Your task to perform on an android device: Clear the cart on costco. Image 0: 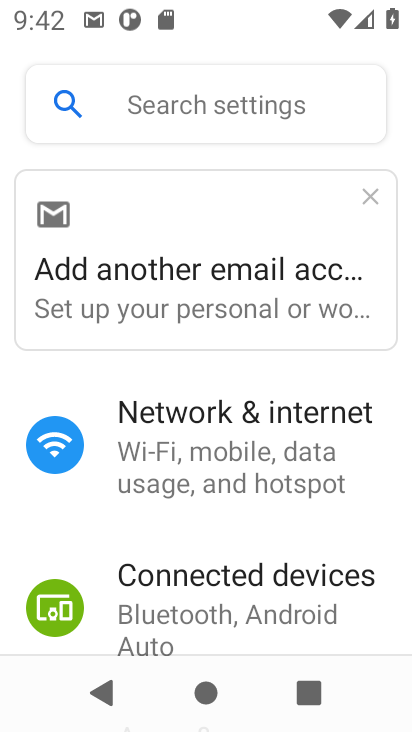
Step 0: press home button
Your task to perform on an android device: Clear the cart on costco. Image 1: 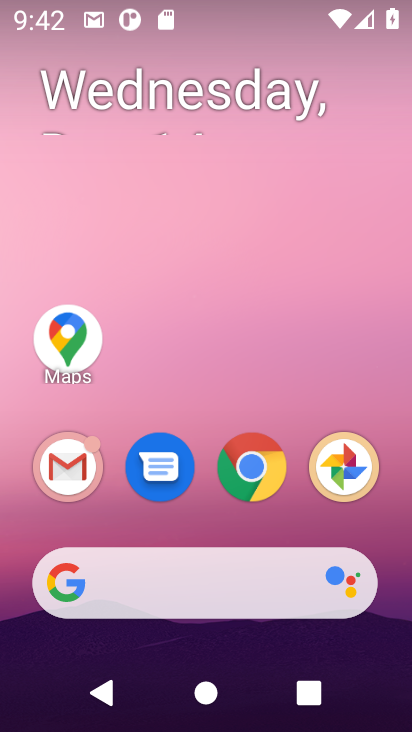
Step 1: click (233, 472)
Your task to perform on an android device: Clear the cart on costco. Image 2: 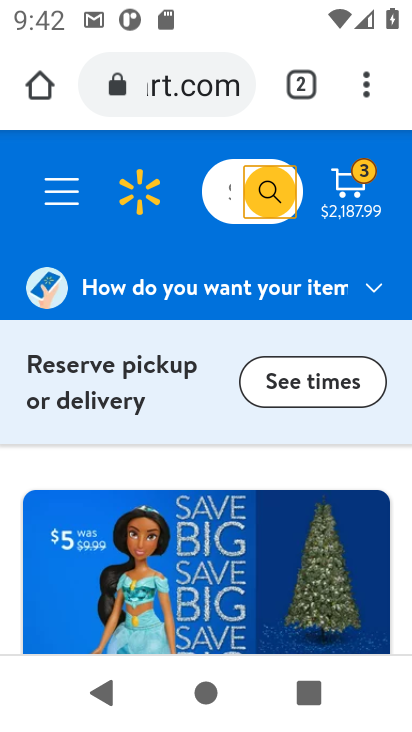
Step 2: click (164, 99)
Your task to perform on an android device: Clear the cart on costco. Image 3: 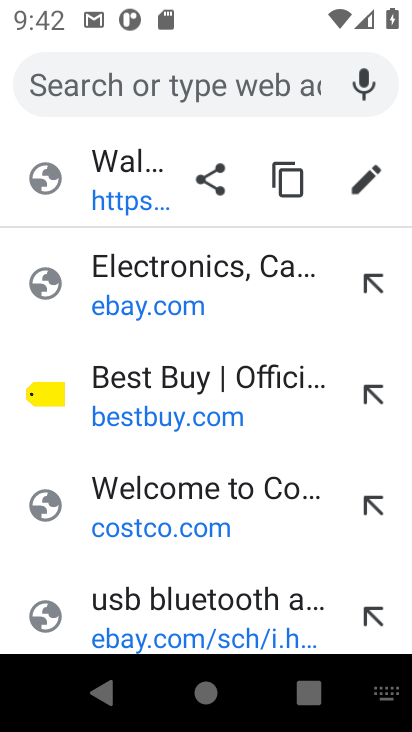
Step 3: click (229, 530)
Your task to perform on an android device: Clear the cart on costco. Image 4: 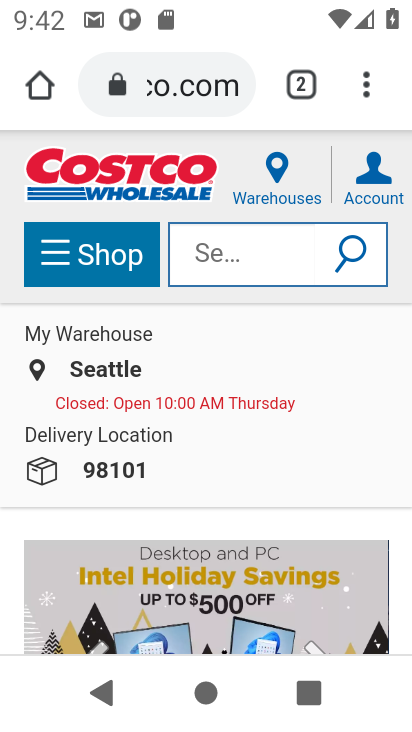
Step 4: click (282, 227)
Your task to perform on an android device: Clear the cart on costco. Image 5: 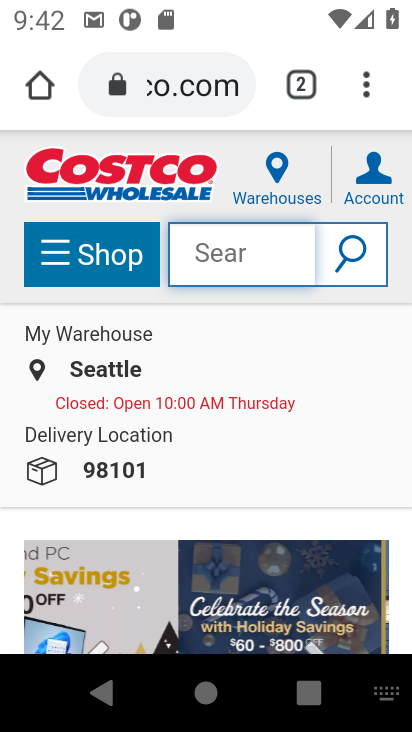
Step 5: task complete